Your task to perform on an android device: turn off sleep mode Image 0: 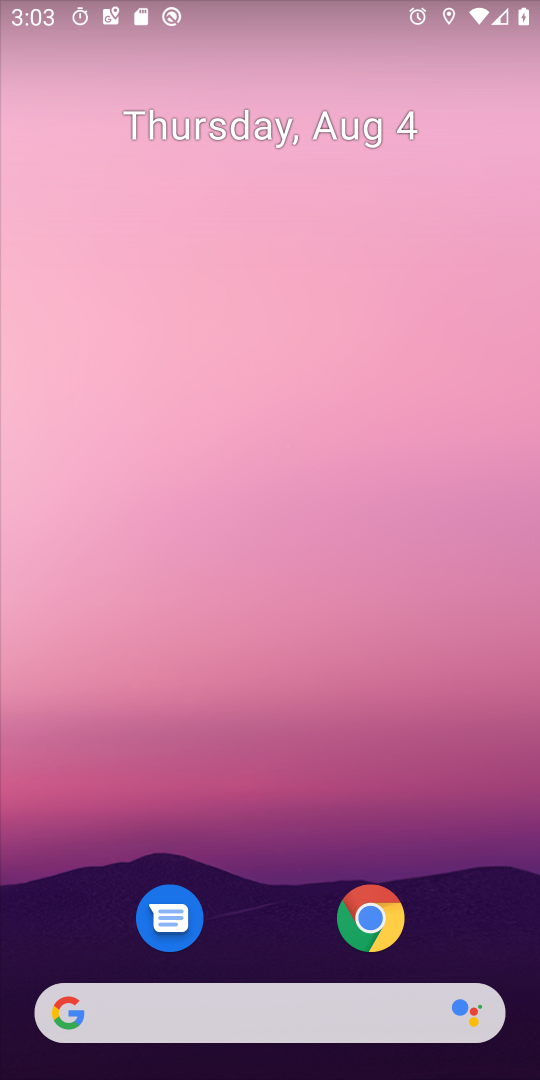
Step 0: drag from (243, 885) to (308, 52)
Your task to perform on an android device: turn off sleep mode Image 1: 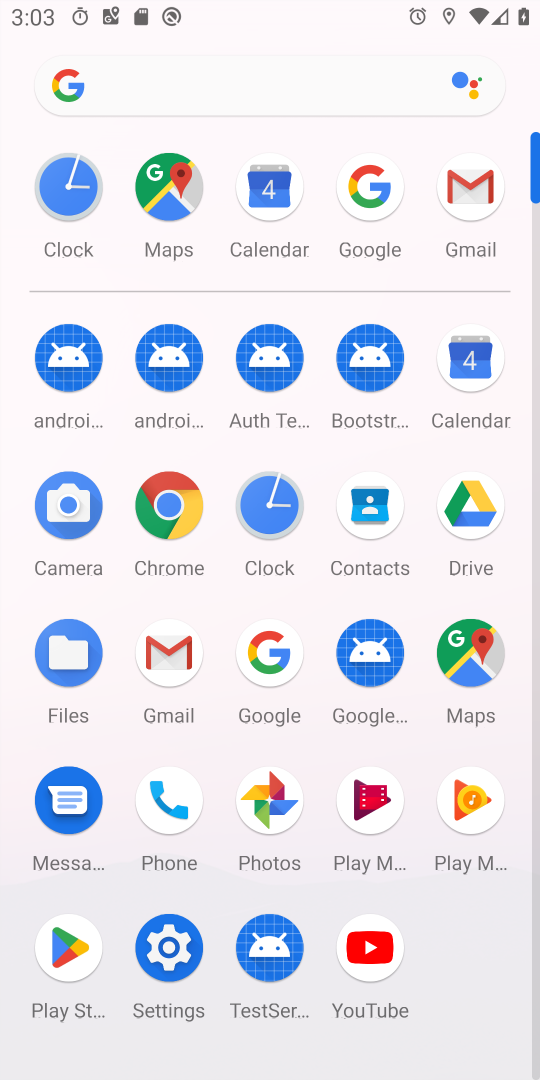
Step 1: click (154, 926)
Your task to perform on an android device: turn off sleep mode Image 2: 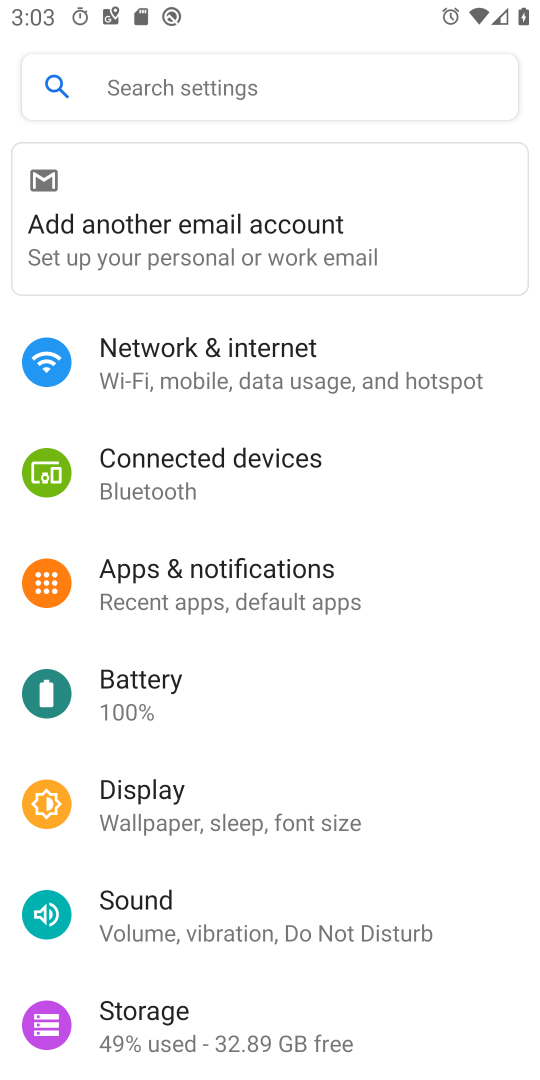
Step 2: click (186, 832)
Your task to perform on an android device: turn off sleep mode Image 3: 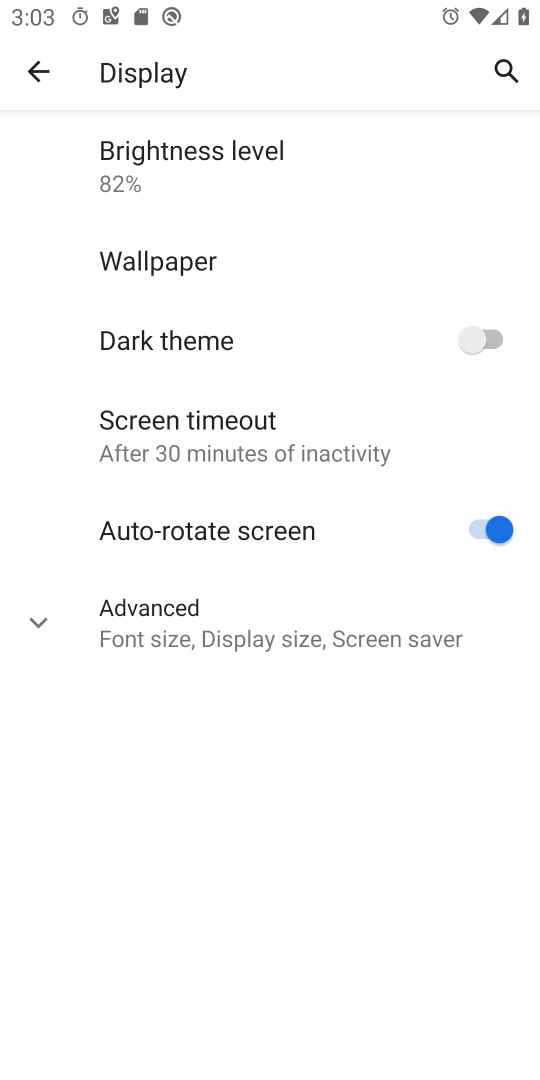
Step 3: click (181, 461)
Your task to perform on an android device: turn off sleep mode Image 4: 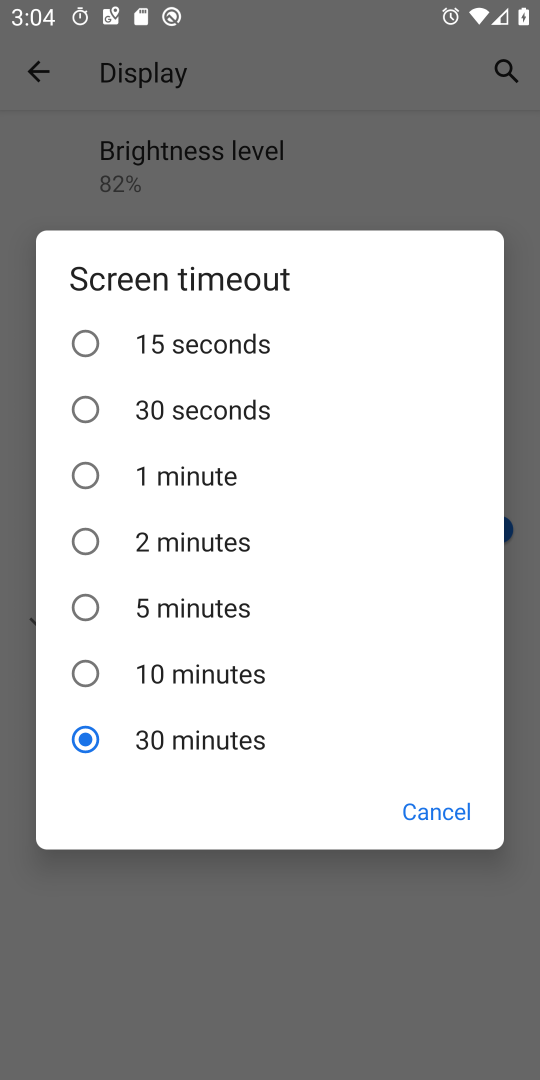
Step 4: click (177, 447)
Your task to perform on an android device: turn off sleep mode Image 5: 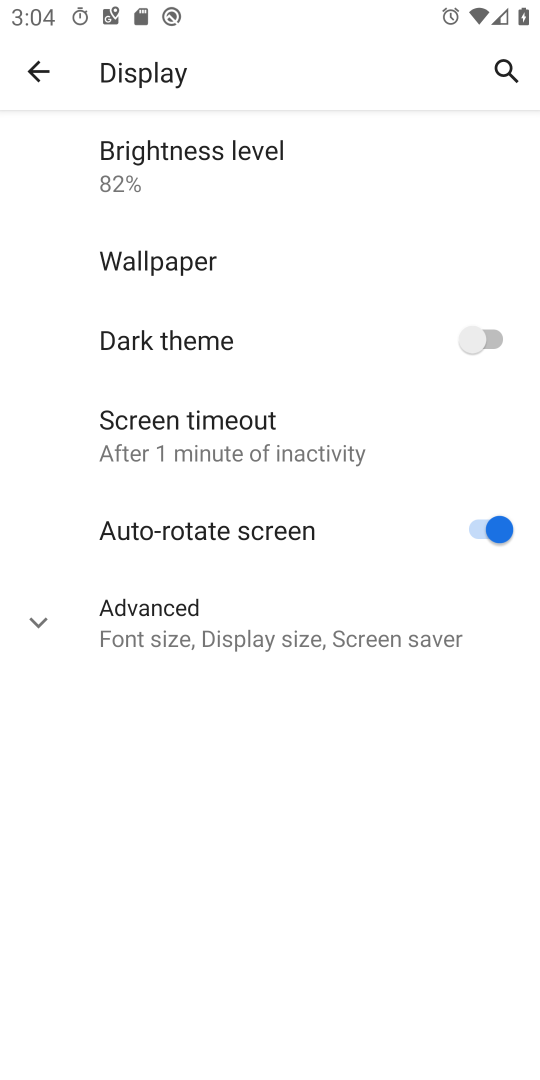
Step 5: task complete